Your task to perform on an android device: Open the web browser Image 0: 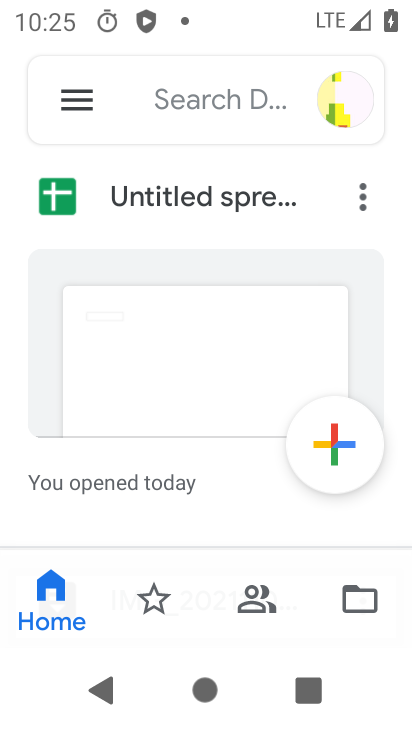
Step 0: press home button
Your task to perform on an android device: Open the web browser Image 1: 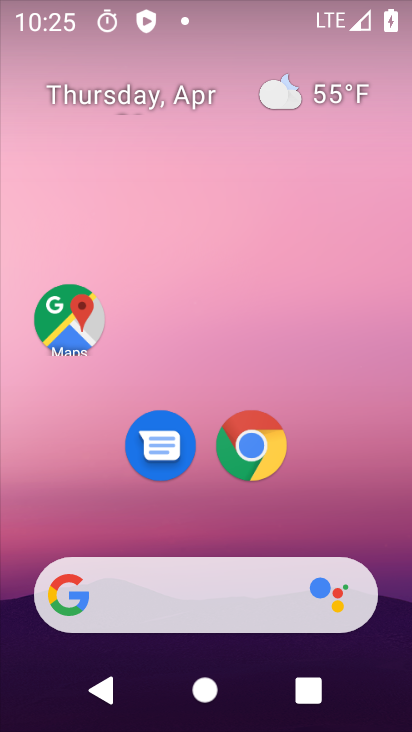
Step 1: click (257, 456)
Your task to perform on an android device: Open the web browser Image 2: 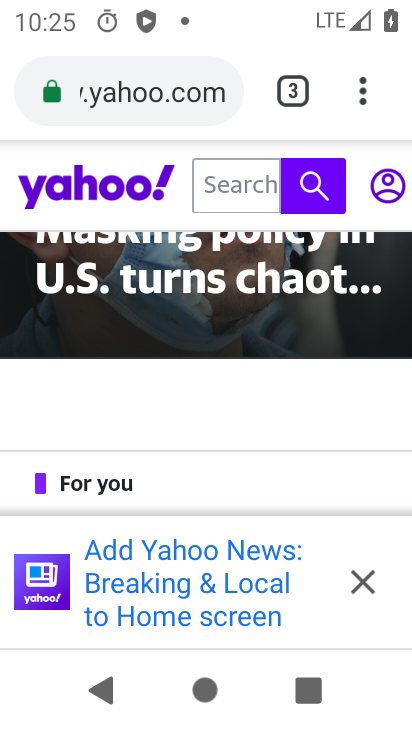
Step 2: task complete